Your task to perform on an android device: open app "Adobe Acrobat Reader: Edit PDF" (install if not already installed) Image 0: 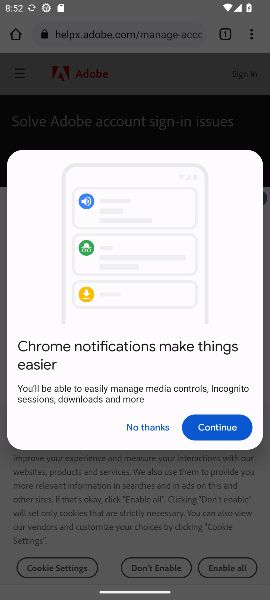
Step 0: press home button
Your task to perform on an android device: open app "Adobe Acrobat Reader: Edit PDF" (install if not already installed) Image 1: 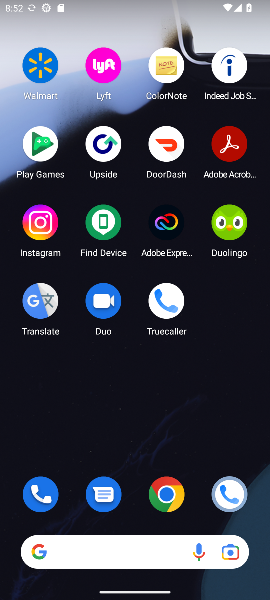
Step 1: drag from (198, 509) to (192, 106)
Your task to perform on an android device: open app "Adobe Acrobat Reader: Edit PDF" (install if not already installed) Image 2: 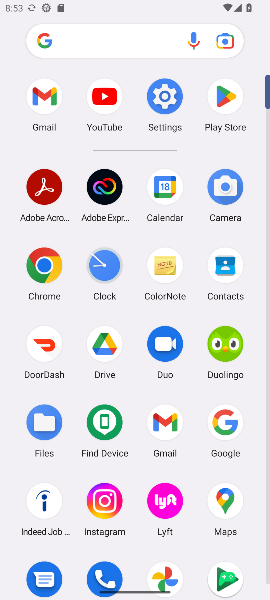
Step 2: drag from (197, 507) to (209, 276)
Your task to perform on an android device: open app "Adobe Acrobat Reader: Edit PDF" (install if not already installed) Image 3: 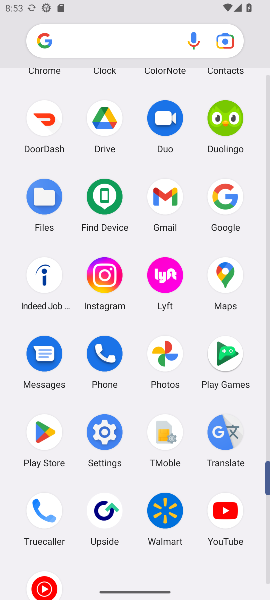
Step 3: click (42, 431)
Your task to perform on an android device: open app "Adobe Acrobat Reader: Edit PDF" (install if not already installed) Image 4: 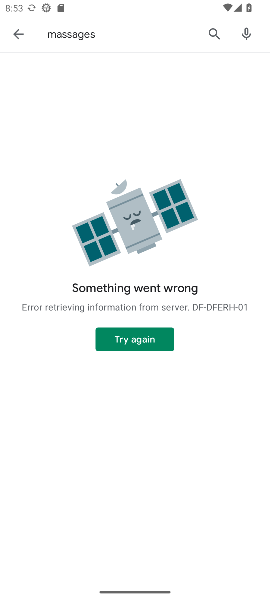
Step 4: click (214, 25)
Your task to perform on an android device: open app "Adobe Acrobat Reader: Edit PDF" (install if not already installed) Image 5: 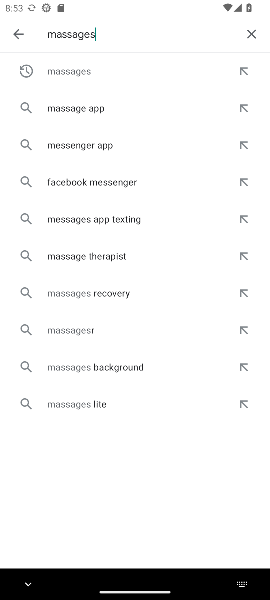
Step 5: click (254, 33)
Your task to perform on an android device: open app "Adobe Acrobat Reader: Edit PDF" (install if not already installed) Image 6: 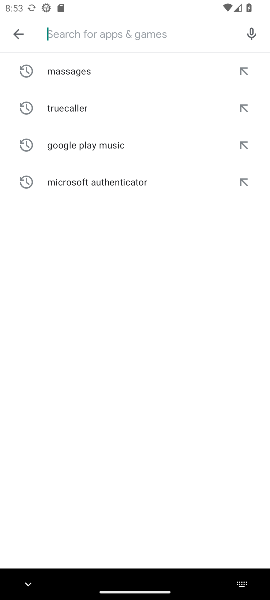
Step 6: type "Adobe Acrobat Reader: Edit PDF"
Your task to perform on an android device: open app "Adobe Acrobat Reader: Edit PDF" (install if not already installed) Image 7: 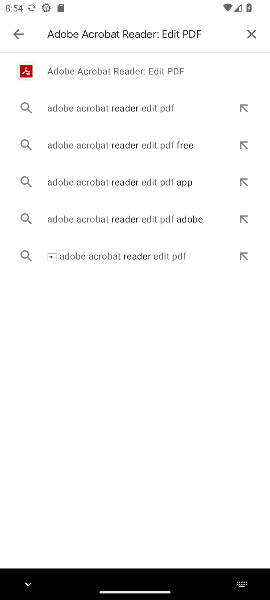
Step 7: click (100, 63)
Your task to perform on an android device: open app "Adobe Acrobat Reader: Edit PDF" (install if not already installed) Image 8: 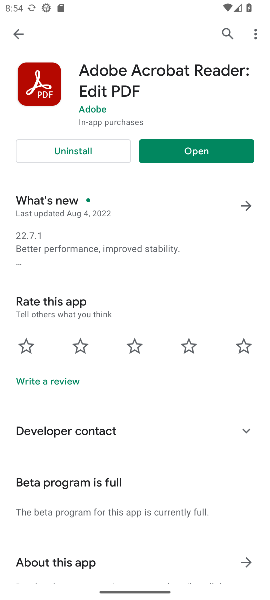
Step 8: click (196, 144)
Your task to perform on an android device: open app "Adobe Acrobat Reader: Edit PDF" (install if not already installed) Image 9: 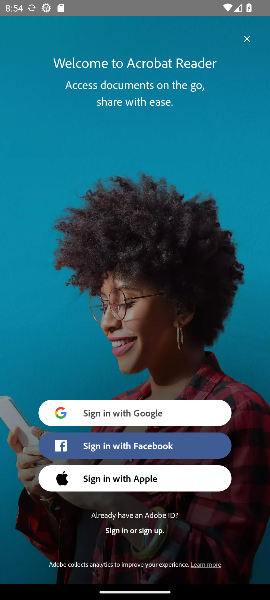
Step 9: task complete